Your task to perform on an android device: change alarm snooze length Image 0: 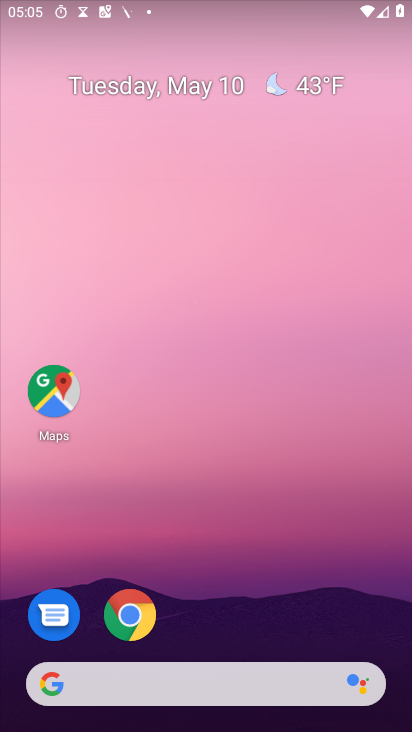
Step 0: drag from (308, 631) to (392, 0)
Your task to perform on an android device: change alarm snooze length Image 1: 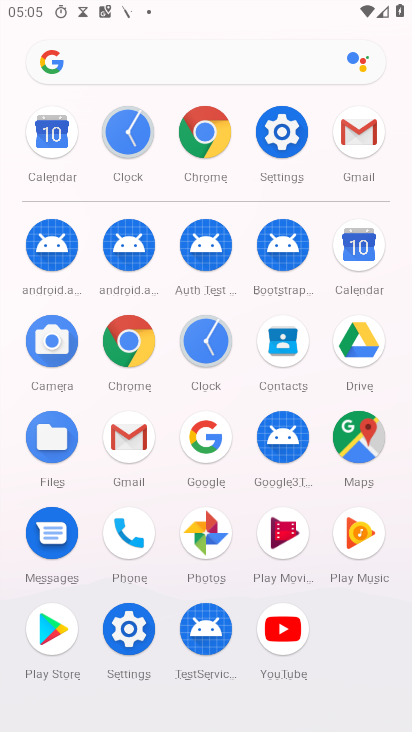
Step 1: click (221, 353)
Your task to perform on an android device: change alarm snooze length Image 2: 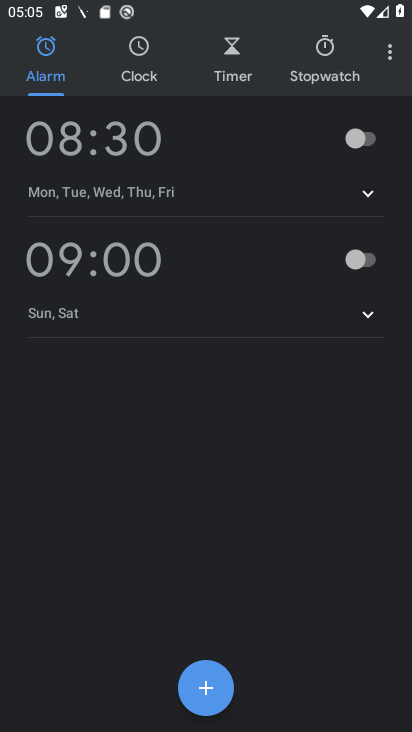
Step 2: click (393, 55)
Your task to perform on an android device: change alarm snooze length Image 3: 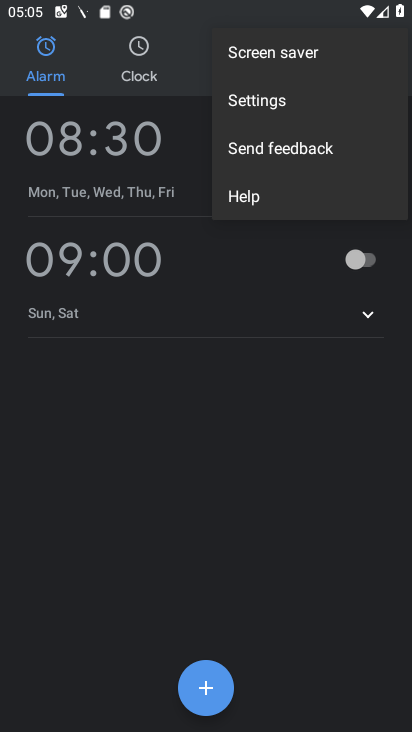
Step 3: click (279, 106)
Your task to perform on an android device: change alarm snooze length Image 4: 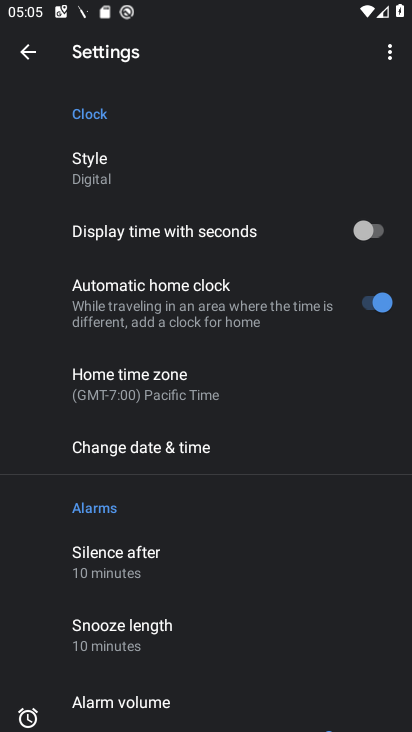
Step 4: click (156, 647)
Your task to perform on an android device: change alarm snooze length Image 5: 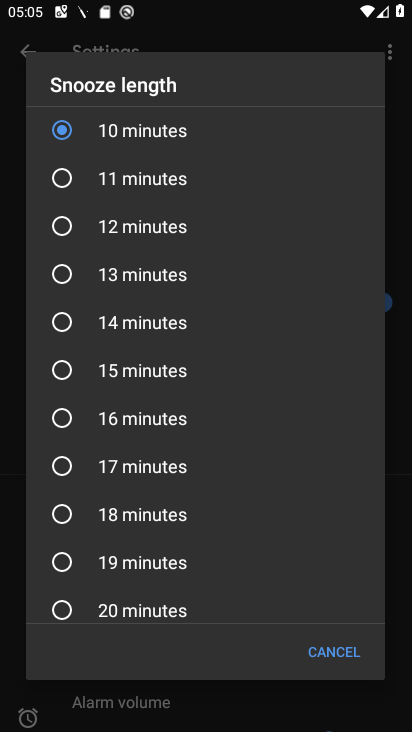
Step 5: click (151, 274)
Your task to perform on an android device: change alarm snooze length Image 6: 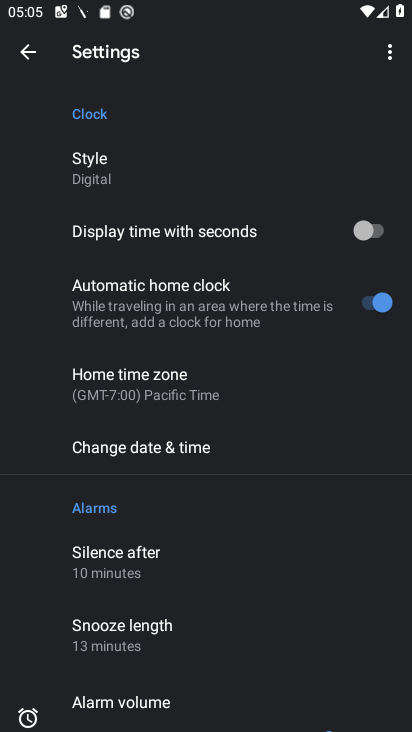
Step 6: task complete